Your task to perform on an android device: What is the news today? Image 0: 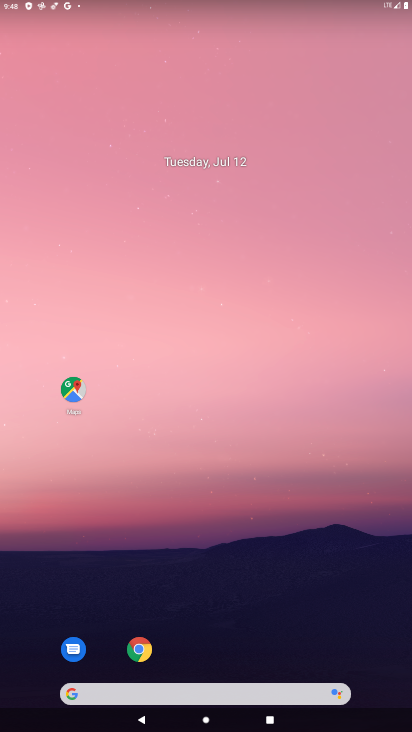
Step 0: drag from (297, 655) to (307, 240)
Your task to perform on an android device: What is the news today? Image 1: 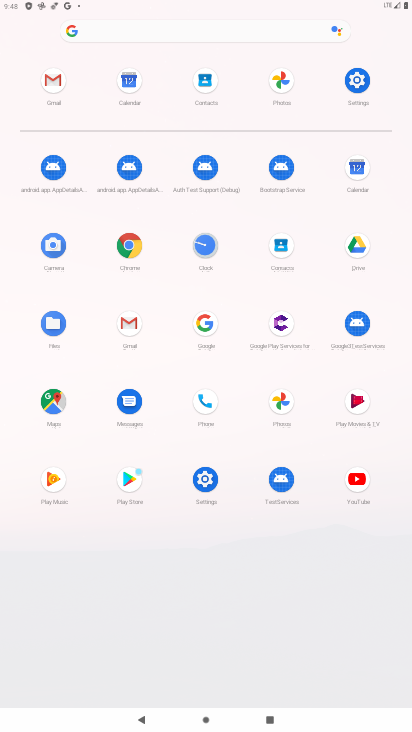
Step 1: click (194, 35)
Your task to perform on an android device: What is the news today? Image 2: 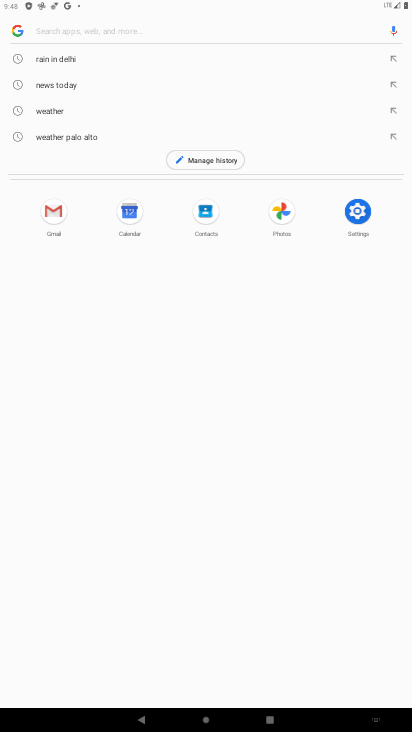
Step 2: click (95, 83)
Your task to perform on an android device: What is the news today? Image 3: 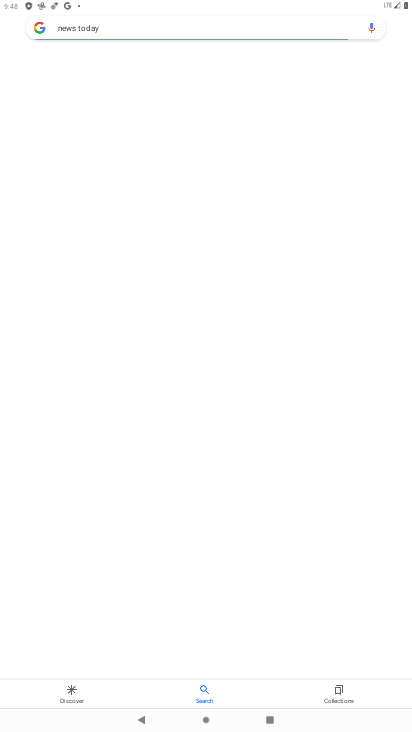
Step 3: task complete